Your task to perform on an android device: allow notifications from all sites in the chrome app Image 0: 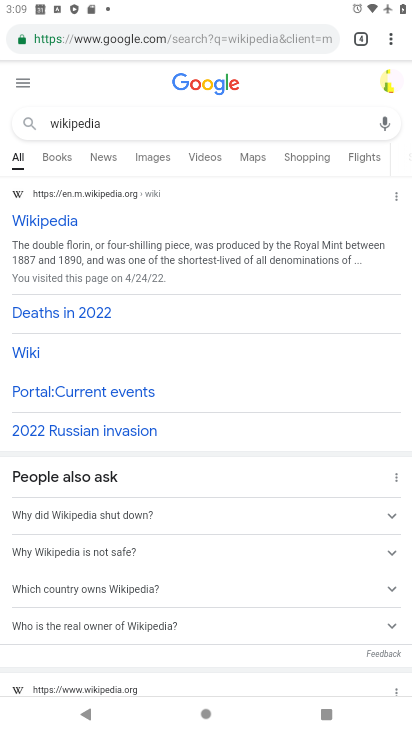
Step 0: click (395, 40)
Your task to perform on an android device: allow notifications from all sites in the chrome app Image 1: 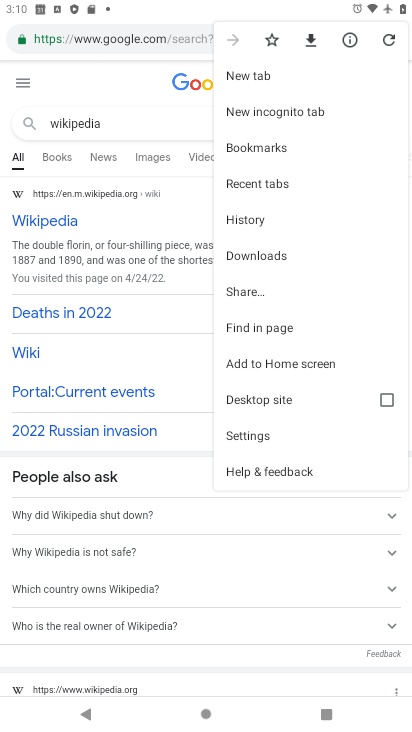
Step 1: click (268, 424)
Your task to perform on an android device: allow notifications from all sites in the chrome app Image 2: 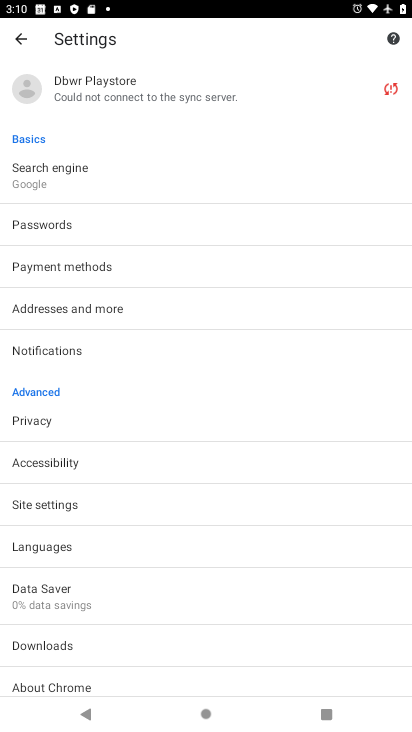
Step 2: click (136, 503)
Your task to perform on an android device: allow notifications from all sites in the chrome app Image 3: 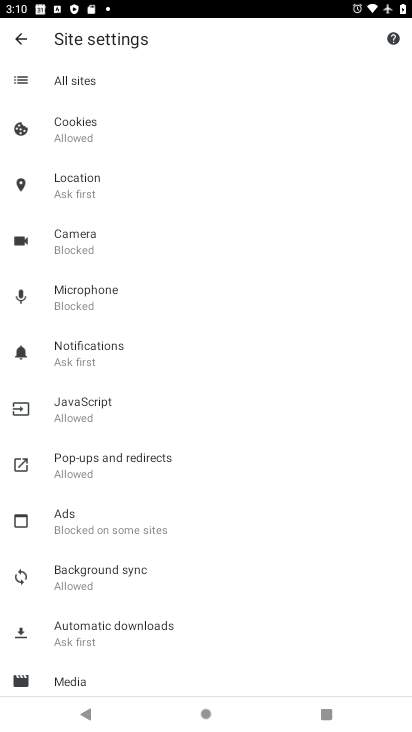
Step 3: task complete